Your task to perform on an android device: Go to Amazon Image 0: 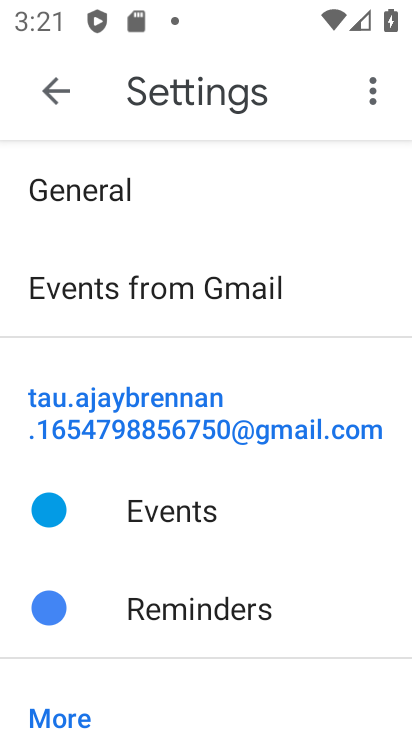
Step 0: press home button
Your task to perform on an android device: Go to Amazon Image 1: 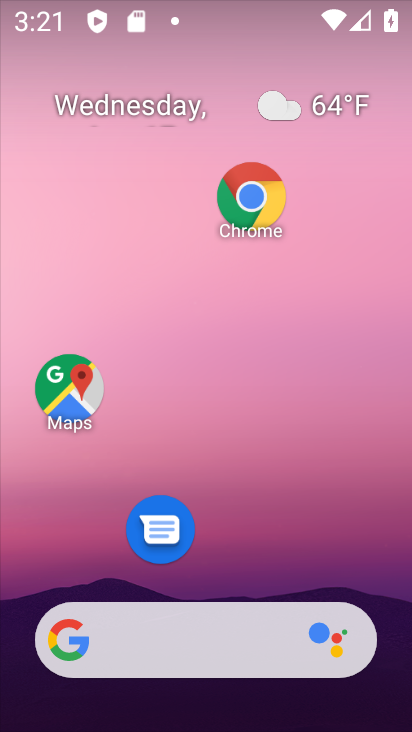
Step 1: click (266, 213)
Your task to perform on an android device: Go to Amazon Image 2: 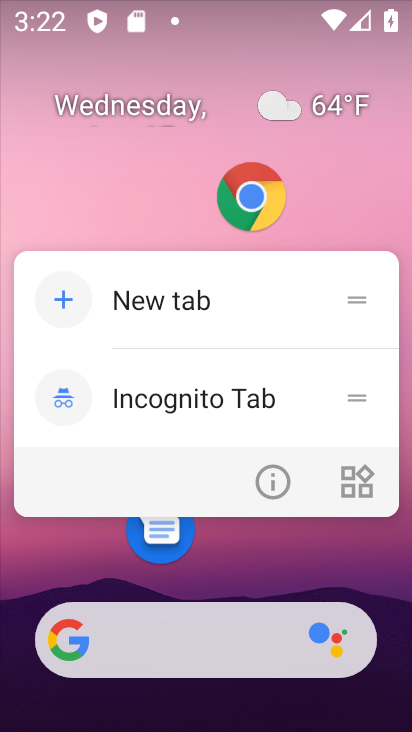
Step 2: click (254, 219)
Your task to perform on an android device: Go to Amazon Image 3: 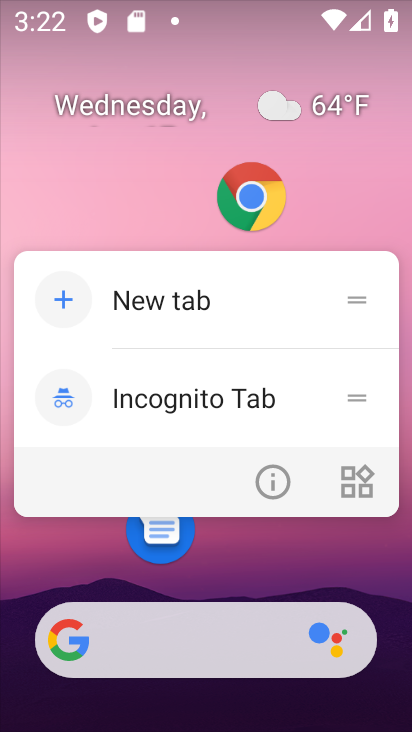
Step 3: click (236, 199)
Your task to perform on an android device: Go to Amazon Image 4: 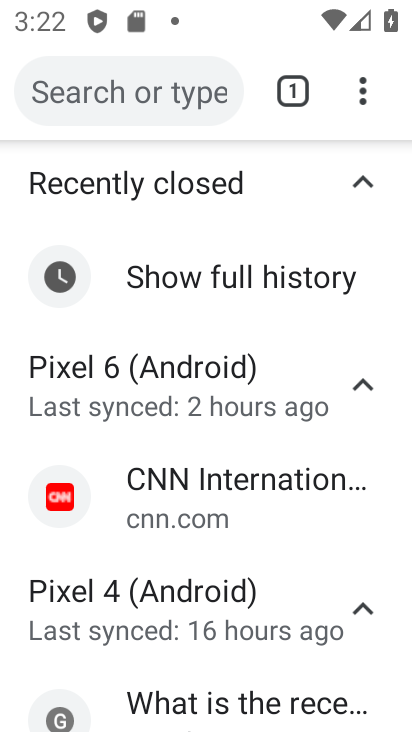
Step 4: click (124, 120)
Your task to perform on an android device: Go to Amazon Image 5: 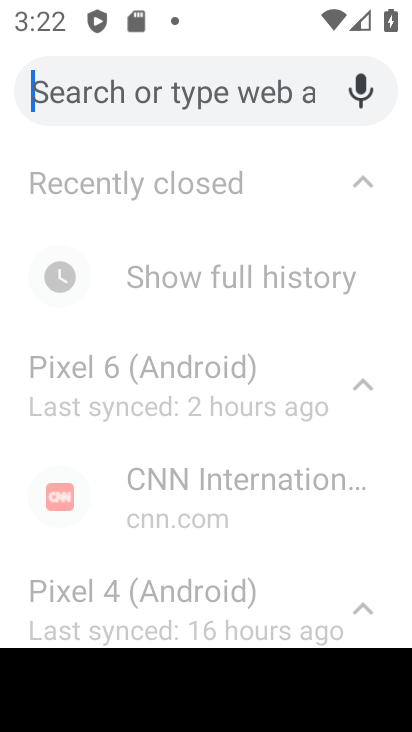
Step 5: type "amazon"
Your task to perform on an android device: Go to Amazon Image 6: 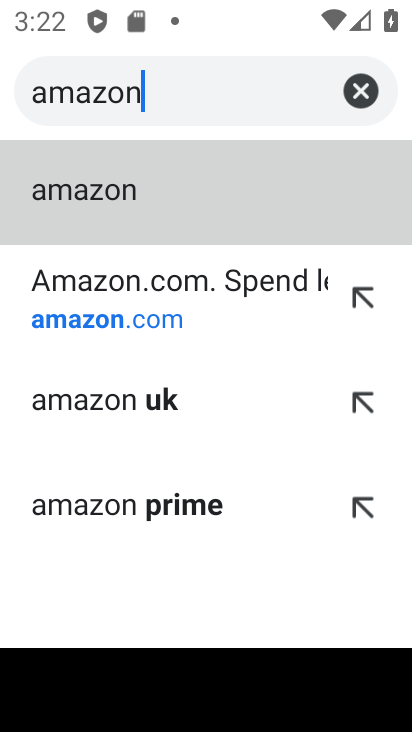
Step 6: click (102, 305)
Your task to perform on an android device: Go to Amazon Image 7: 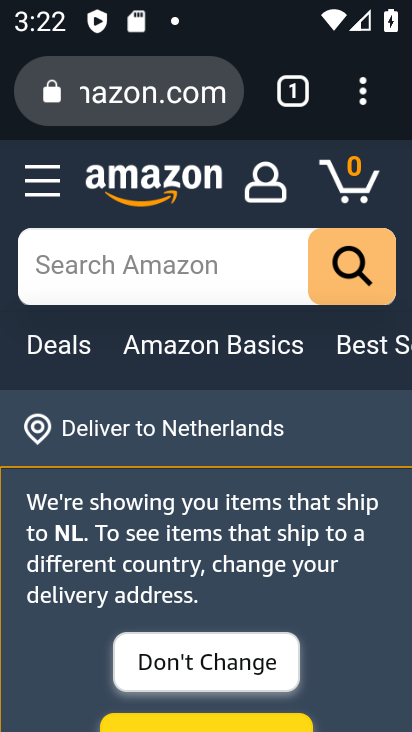
Step 7: task complete